Your task to perform on an android device: check battery use Image 0: 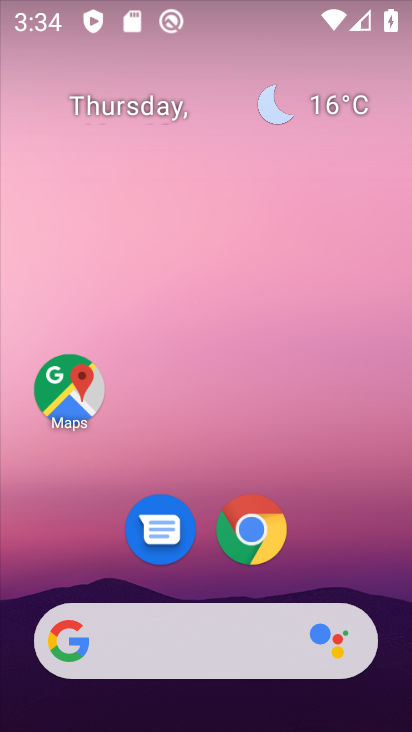
Step 0: drag from (215, 573) to (257, 232)
Your task to perform on an android device: check battery use Image 1: 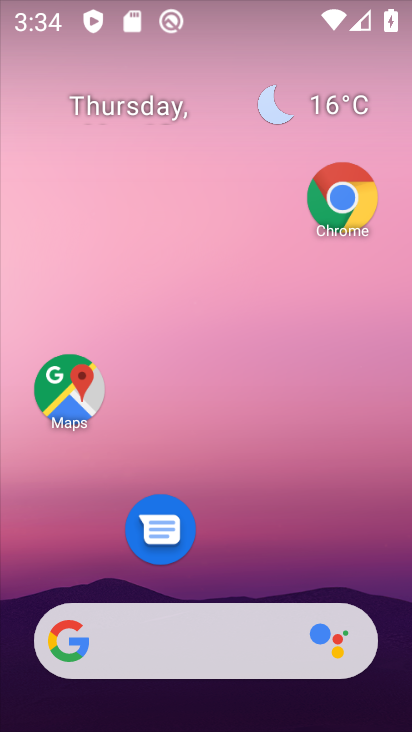
Step 1: drag from (215, 551) to (148, 10)
Your task to perform on an android device: check battery use Image 2: 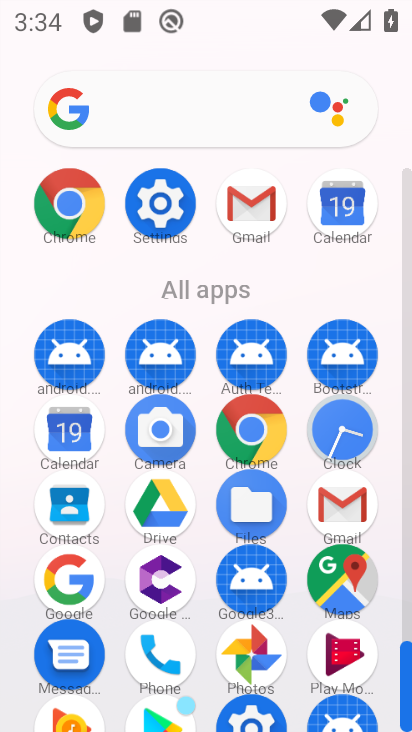
Step 2: click (121, 221)
Your task to perform on an android device: check battery use Image 3: 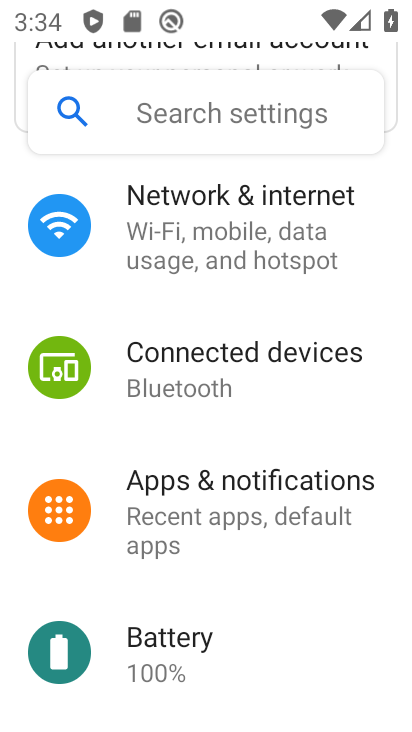
Step 3: click (199, 650)
Your task to perform on an android device: check battery use Image 4: 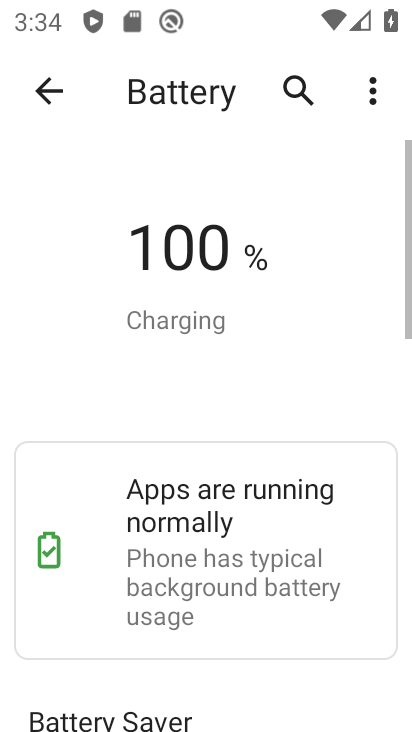
Step 4: task complete